Your task to perform on an android device: find photos in the google photos app Image 0: 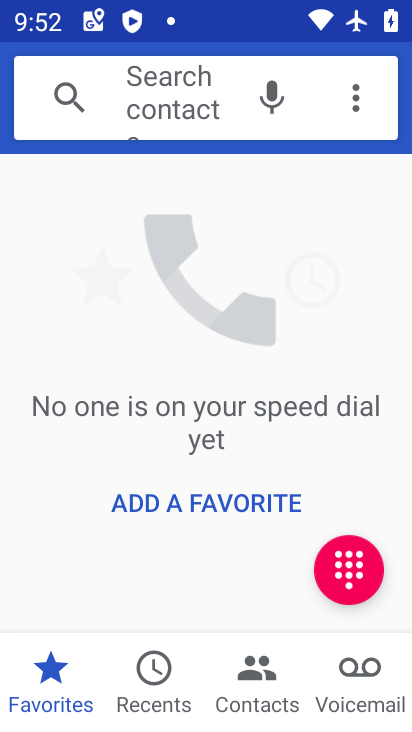
Step 0: press home button
Your task to perform on an android device: find photos in the google photos app Image 1: 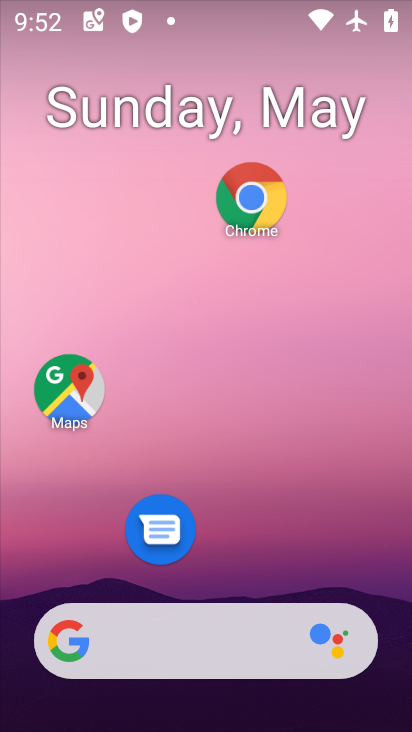
Step 1: drag from (249, 504) to (252, 76)
Your task to perform on an android device: find photos in the google photos app Image 2: 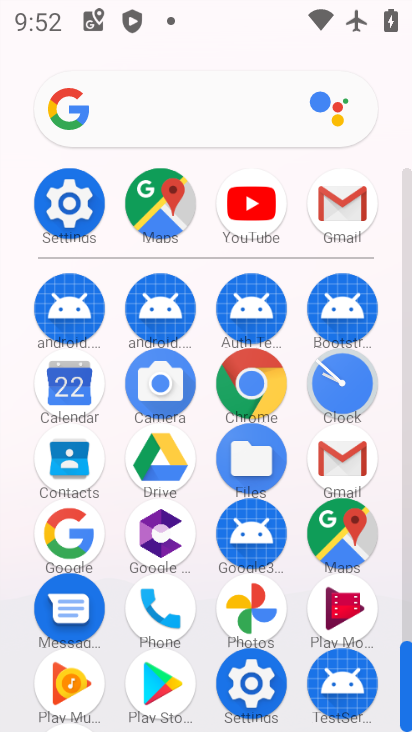
Step 2: click (249, 602)
Your task to perform on an android device: find photos in the google photos app Image 3: 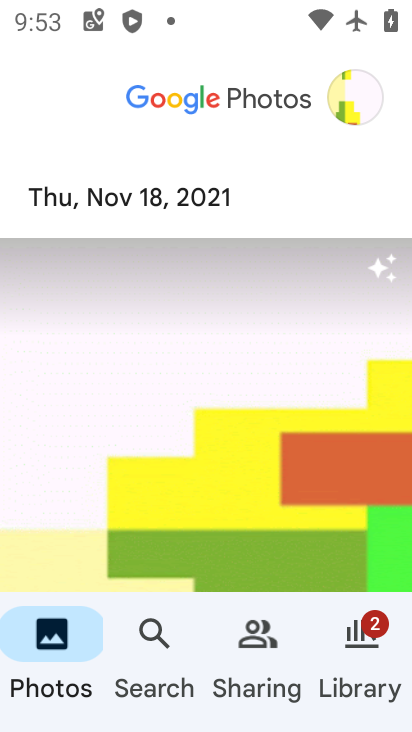
Step 3: click (42, 646)
Your task to perform on an android device: find photos in the google photos app Image 4: 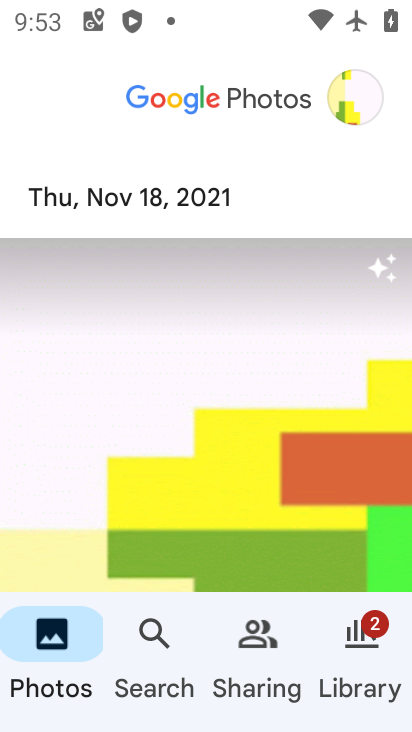
Step 4: task complete